Your task to perform on an android device: star an email in the gmail app Image 0: 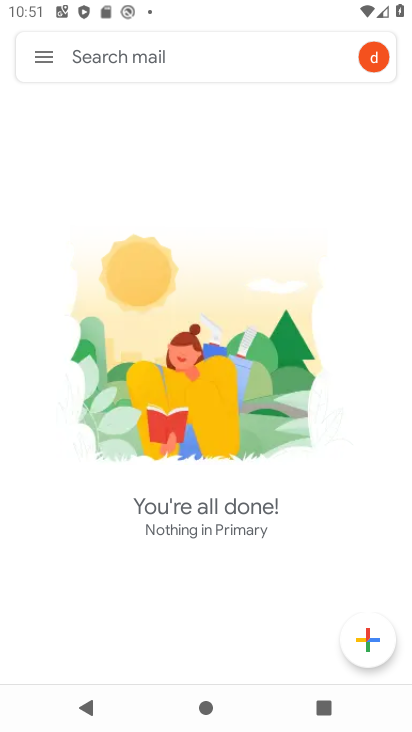
Step 0: click (38, 54)
Your task to perform on an android device: star an email in the gmail app Image 1: 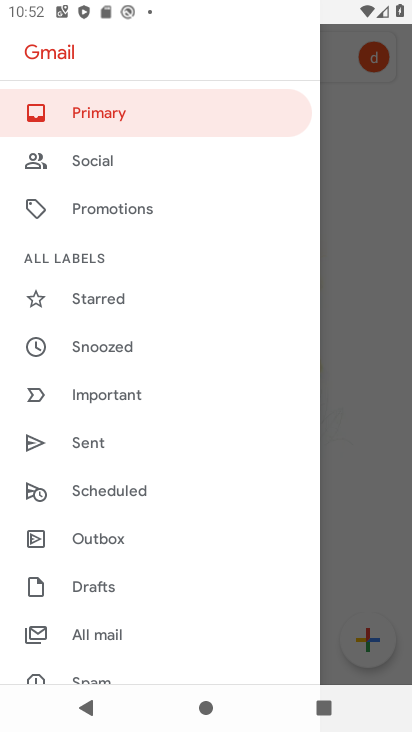
Step 1: click (136, 628)
Your task to perform on an android device: star an email in the gmail app Image 2: 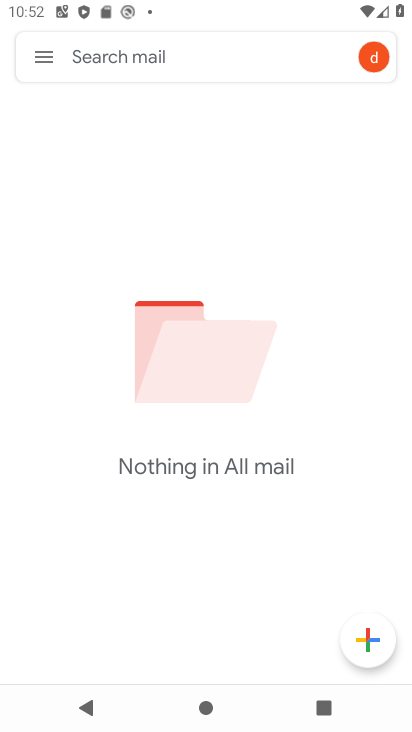
Step 2: task complete